Your task to perform on an android device: Go to privacy settings Image 0: 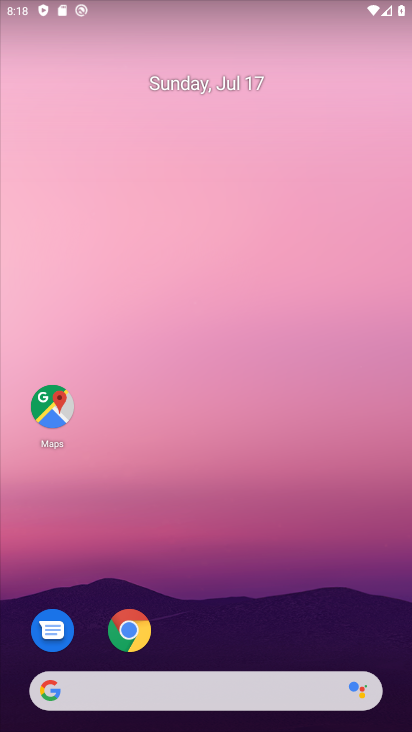
Step 0: drag from (281, 645) to (201, 116)
Your task to perform on an android device: Go to privacy settings Image 1: 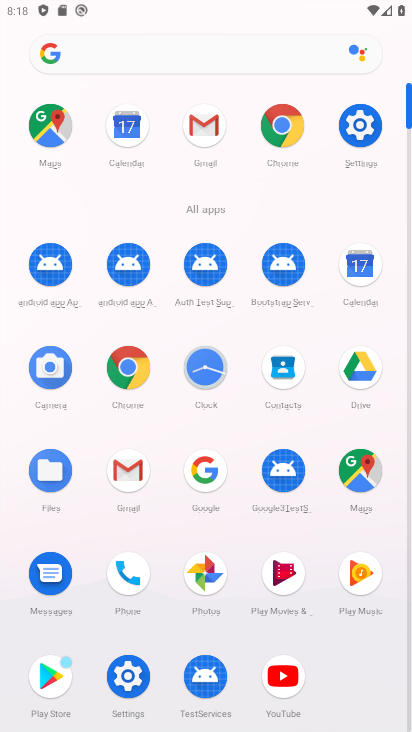
Step 1: click (349, 149)
Your task to perform on an android device: Go to privacy settings Image 2: 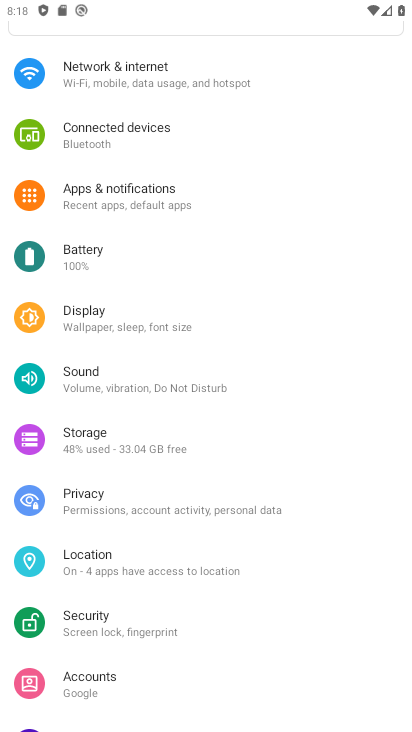
Step 2: click (131, 498)
Your task to perform on an android device: Go to privacy settings Image 3: 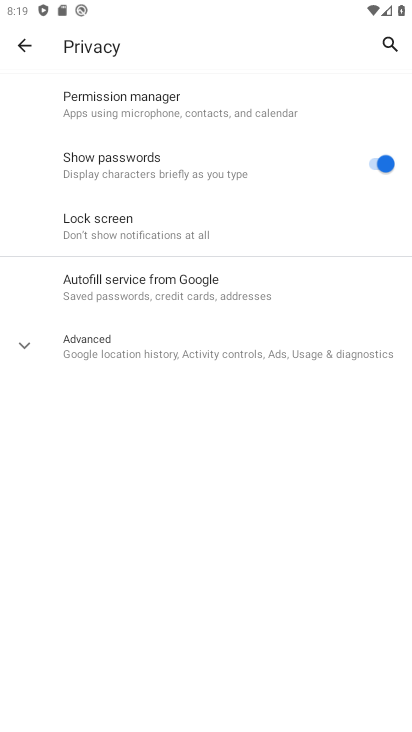
Step 3: click (197, 359)
Your task to perform on an android device: Go to privacy settings Image 4: 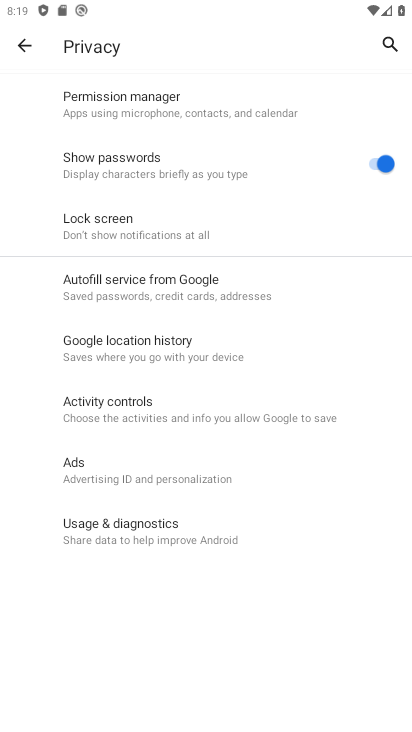
Step 4: task complete